Your task to perform on an android device: Show me the alarms in the clock app Image 0: 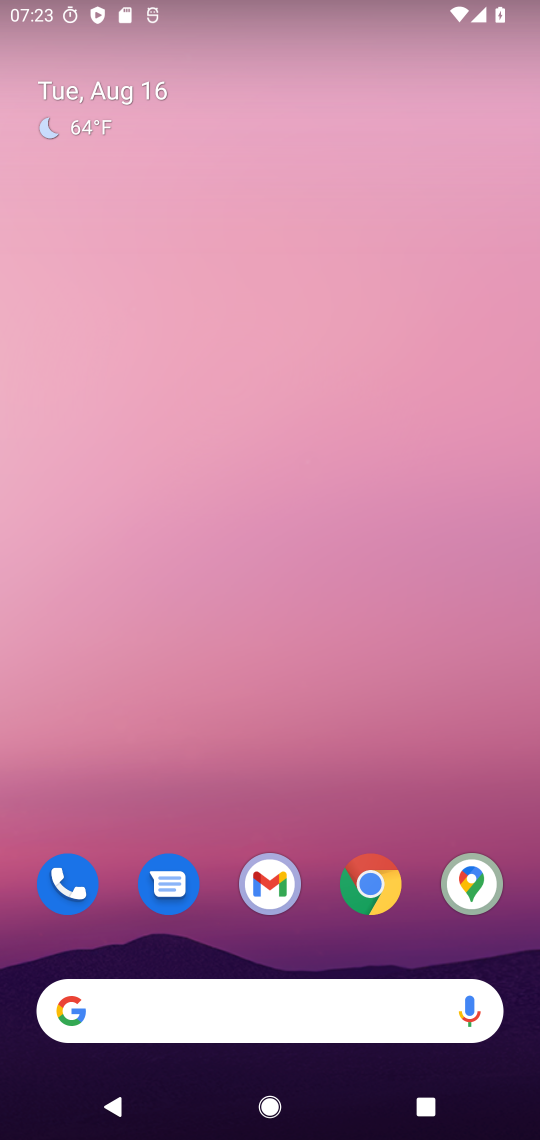
Step 0: press home button
Your task to perform on an android device: Show me the alarms in the clock app Image 1: 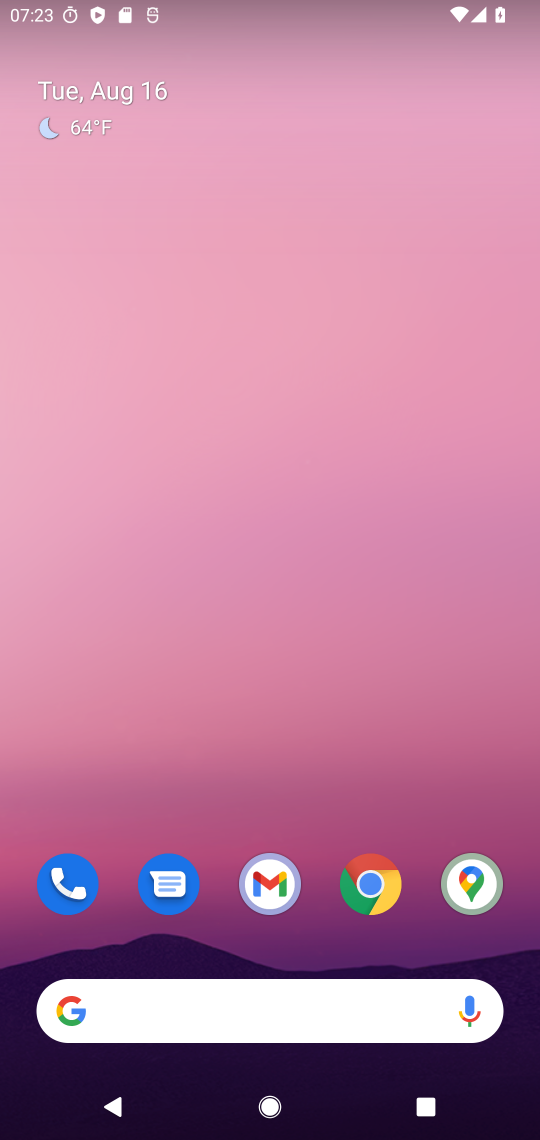
Step 1: drag from (399, 812) to (366, 28)
Your task to perform on an android device: Show me the alarms in the clock app Image 2: 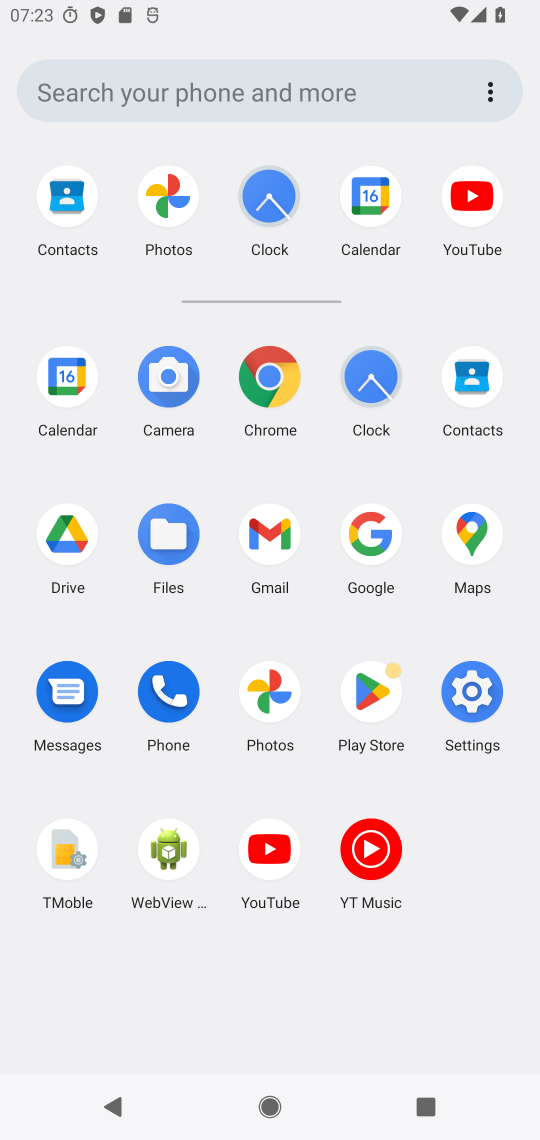
Step 2: click (271, 197)
Your task to perform on an android device: Show me the alarms in the clock app Image 3: 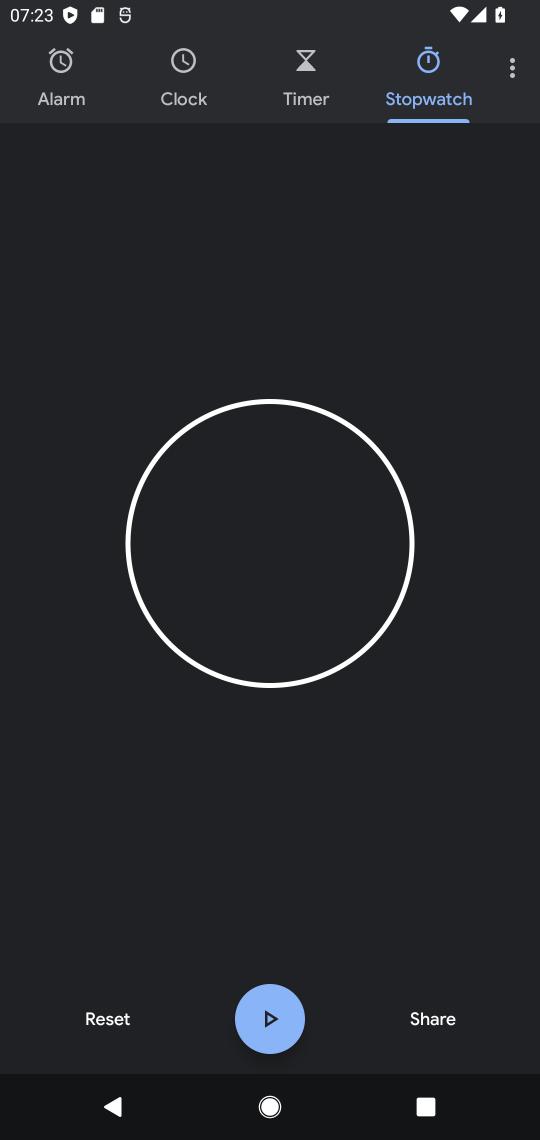
Step 3: click (58, 54)
Your task to perform on an android device: Show me the alarms in the clock app Image 4: 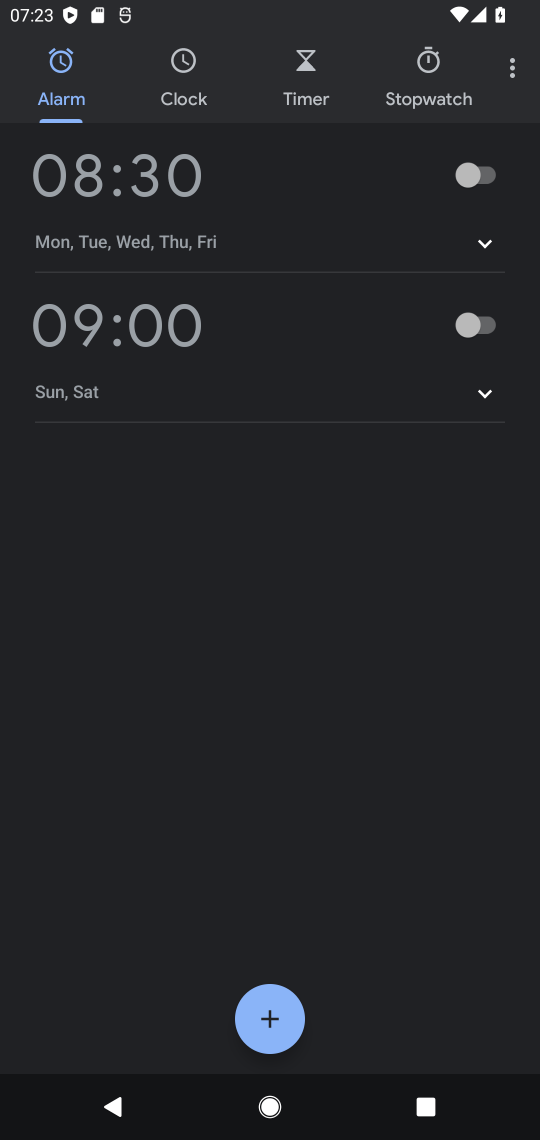
Step 4: task complete